Your task to perform on an android device: check storage Image 0: 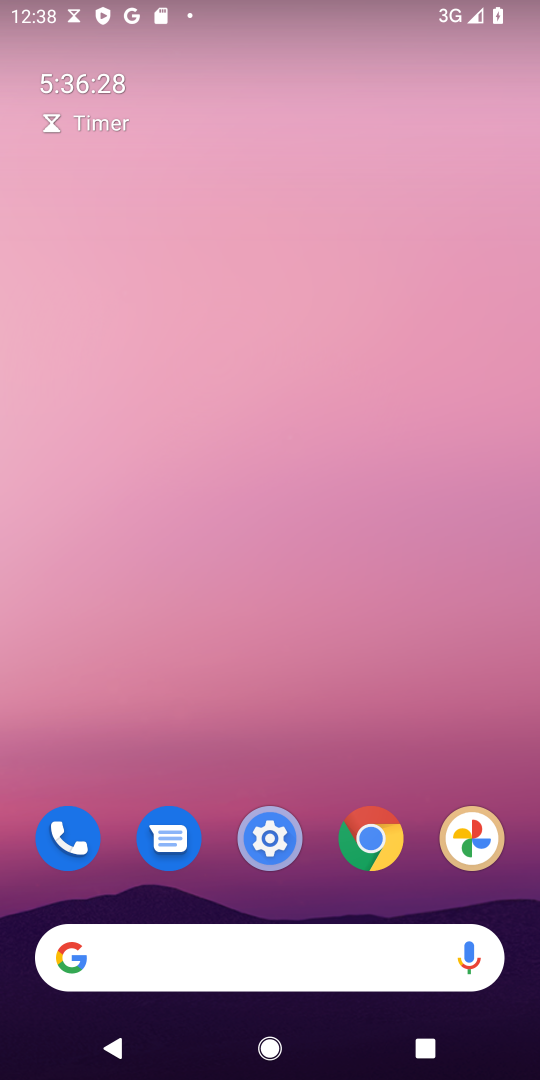
Step 0: click (278, 834)
Your task to perform on an android device: check storage Image 1: 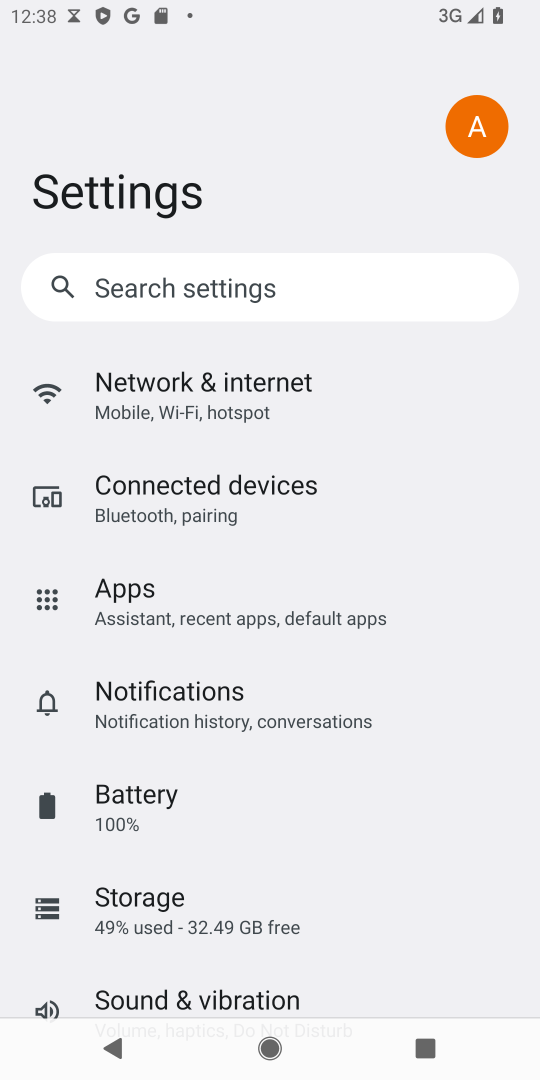
Step 1: click (201, 902)
Your task to perform on an android device: check storage Image 2: 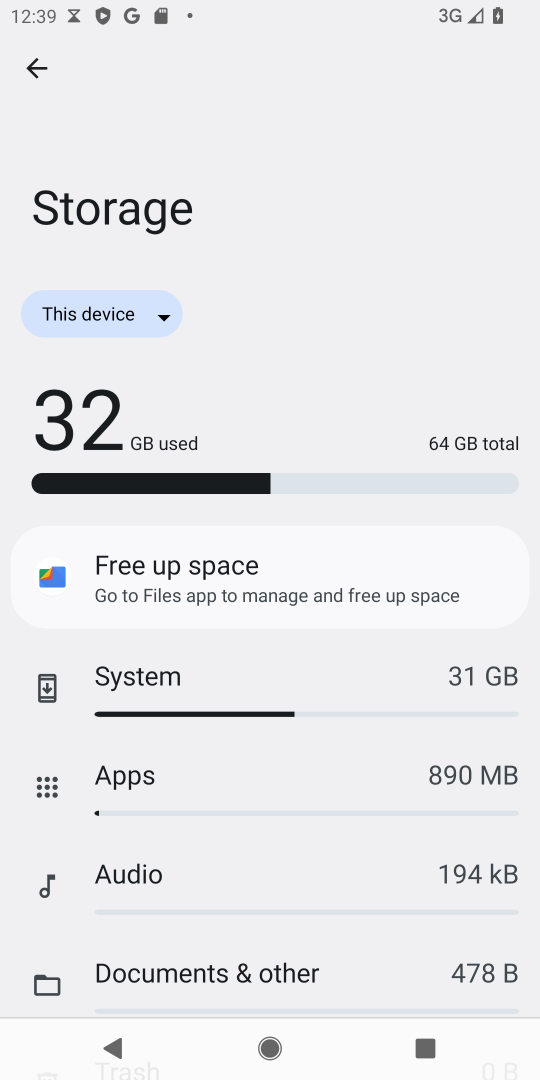
Step 2: task complete